Your task to perform on an android device: Open network settings Image 0: 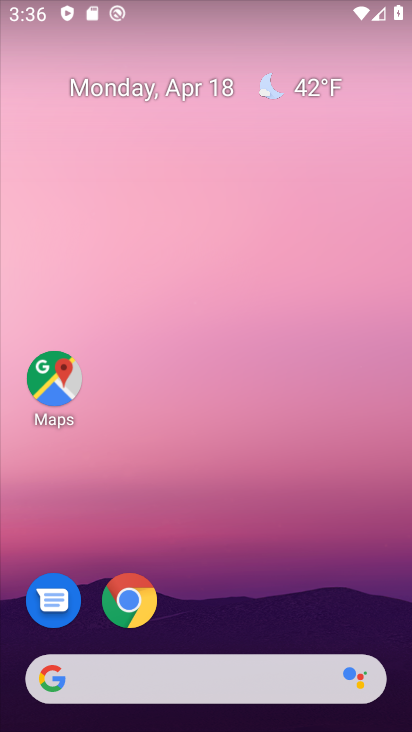
Step 0: drag from (257, 408) to (262, 169)
Your task to perform on an android device: Open network settings Image 1: 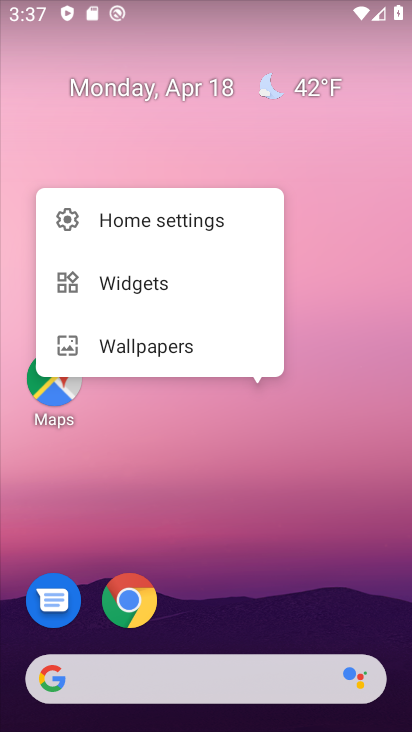
Step 1: drag from (239, 711) to (273, 183)
Your task to perform on an android device: Open network settings Image 2: 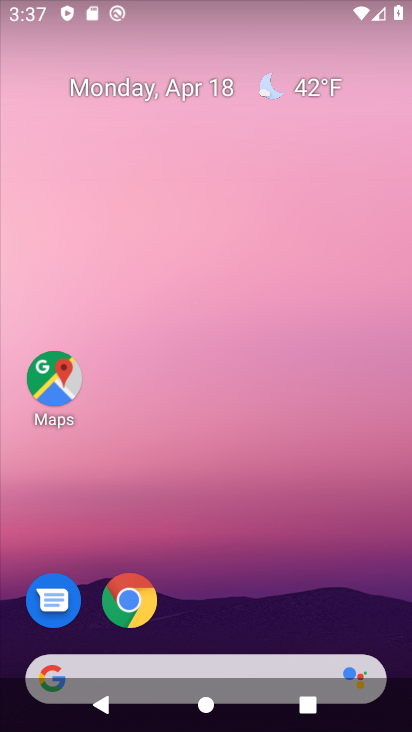
Step 2: drag from (265, 385) to (279, 122)
Your task to perform on an android device: Open network settings Image 3: 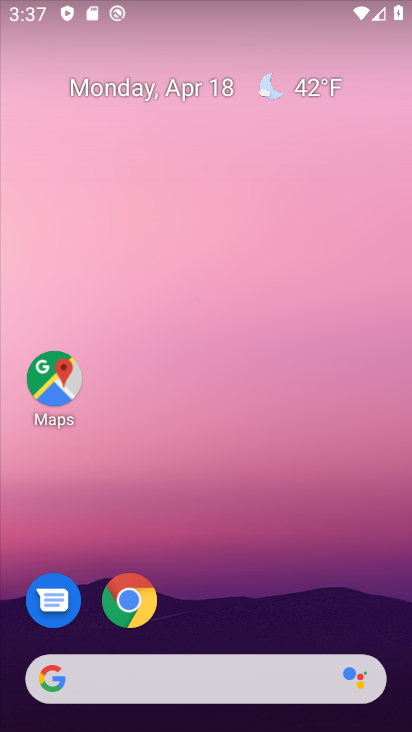
Step 3: drag from (277, 715) to (221, 21)
Your task to perform on an android device: Open network settings Image 4: 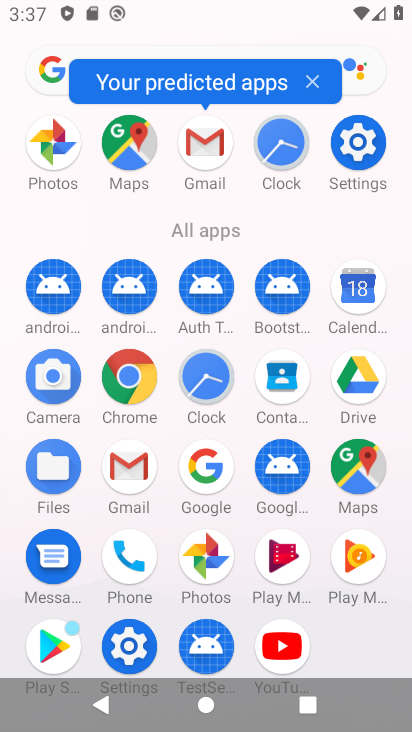
Step 4: click (350, 140)
Your task to perform on an android device: Open network settings Image 5: 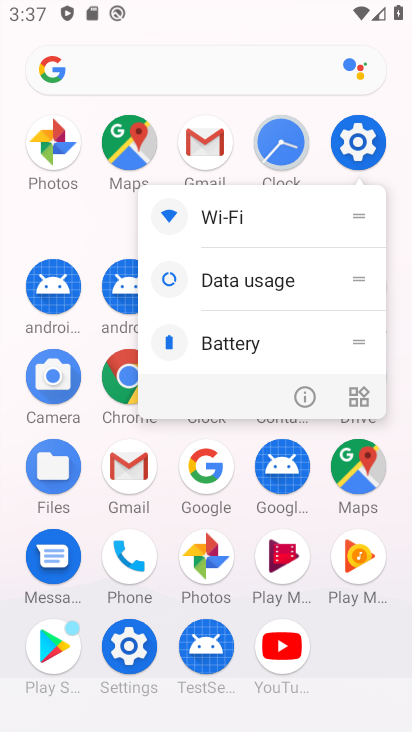
Step 5: click (341, 158)
Your task to perform on an android device: Open network settings Image 6: 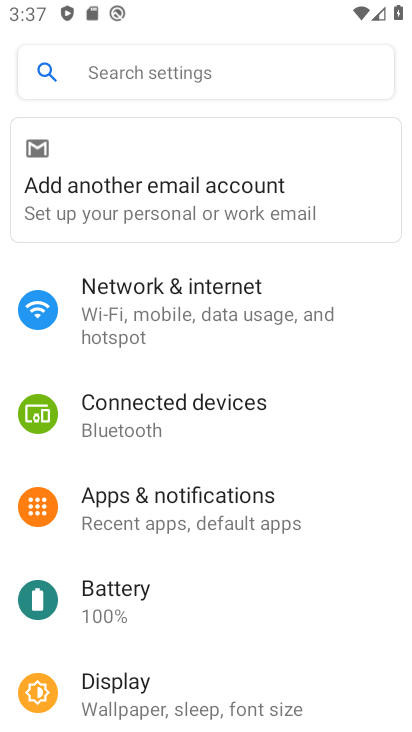
Step 6: click (237, 300)
Your task to perform on an android device: Open network settings Image 7: 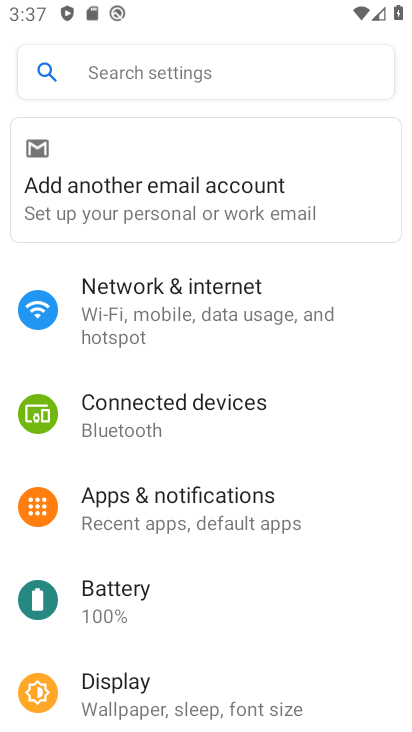
Step 7: click (237, 300)
Your task to perform on an android device: Open network settings Image 8: 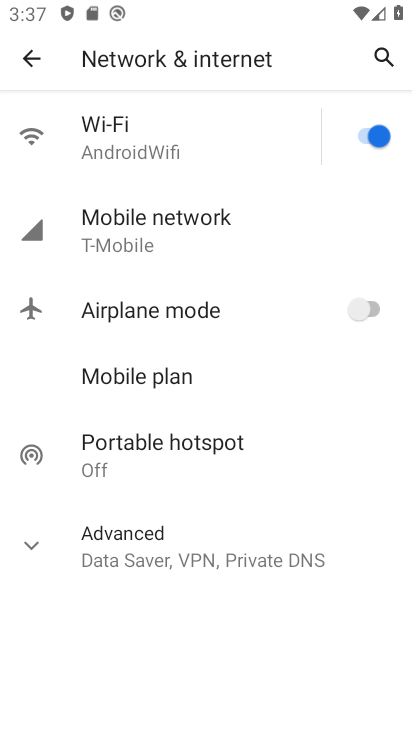
Step 8: task complete